Your task to perform on an android device: Open sound settings Image 0: 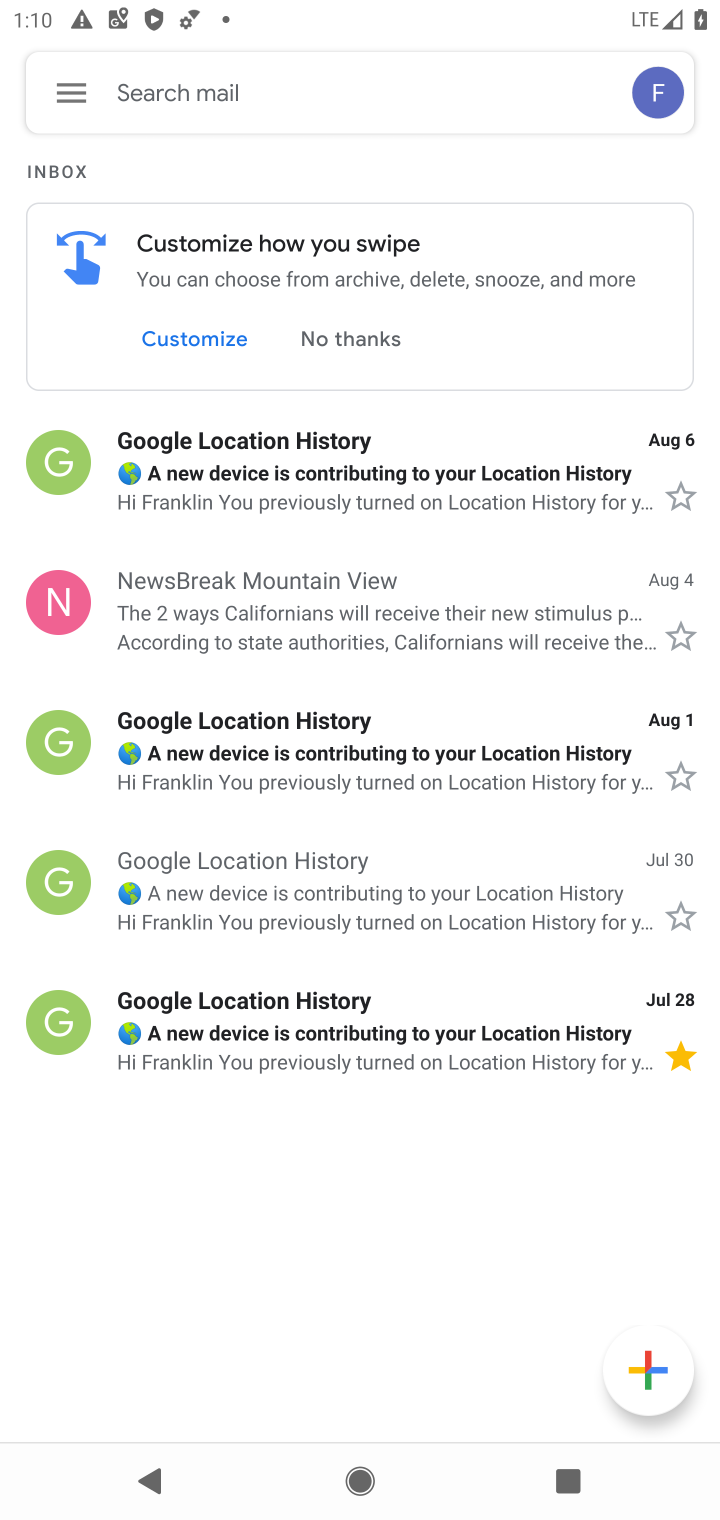
Step 0: press home button
Your task to perform on an android device: Open sound settings Image 1: 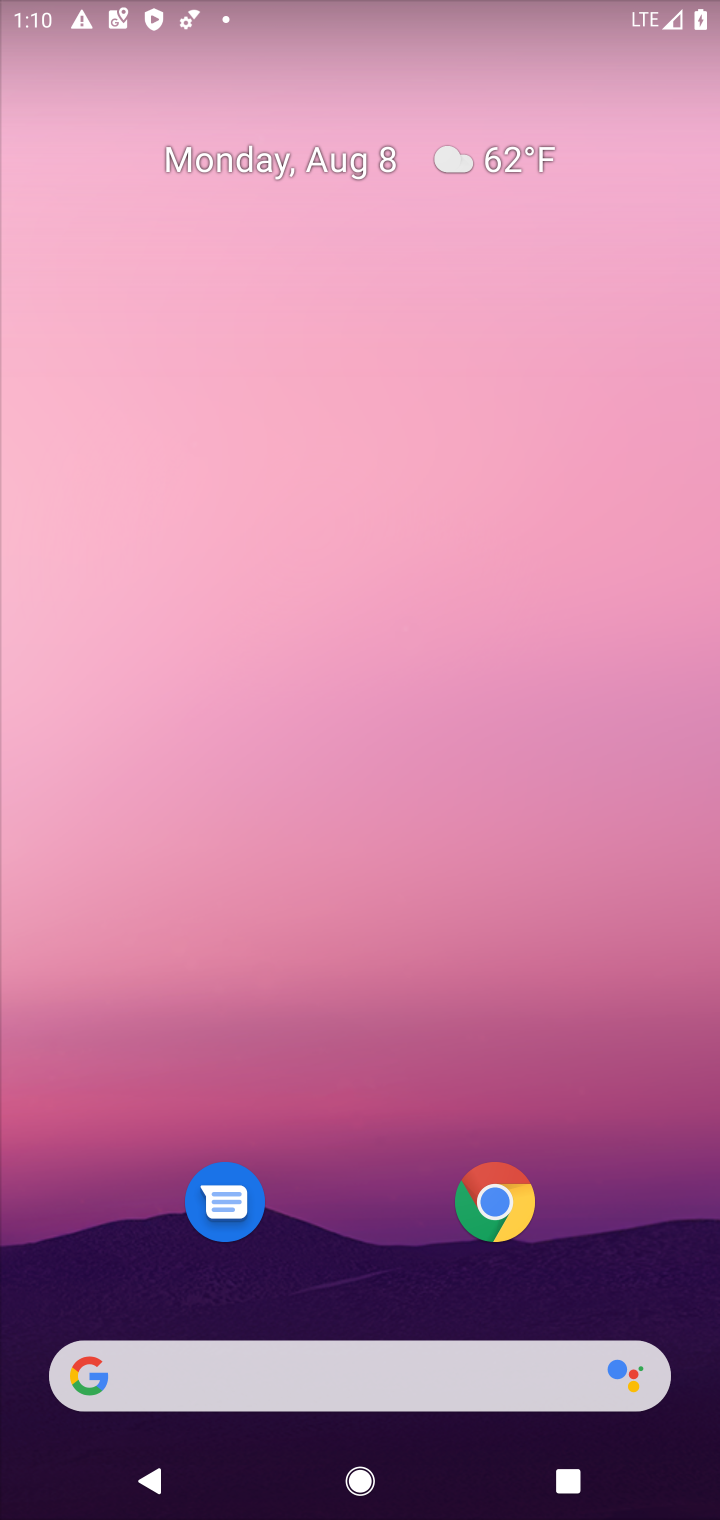
Step 1: drag from (333, 1092) to (383, 268)
Your task to perform on an android device: Open sound settings Image 2: 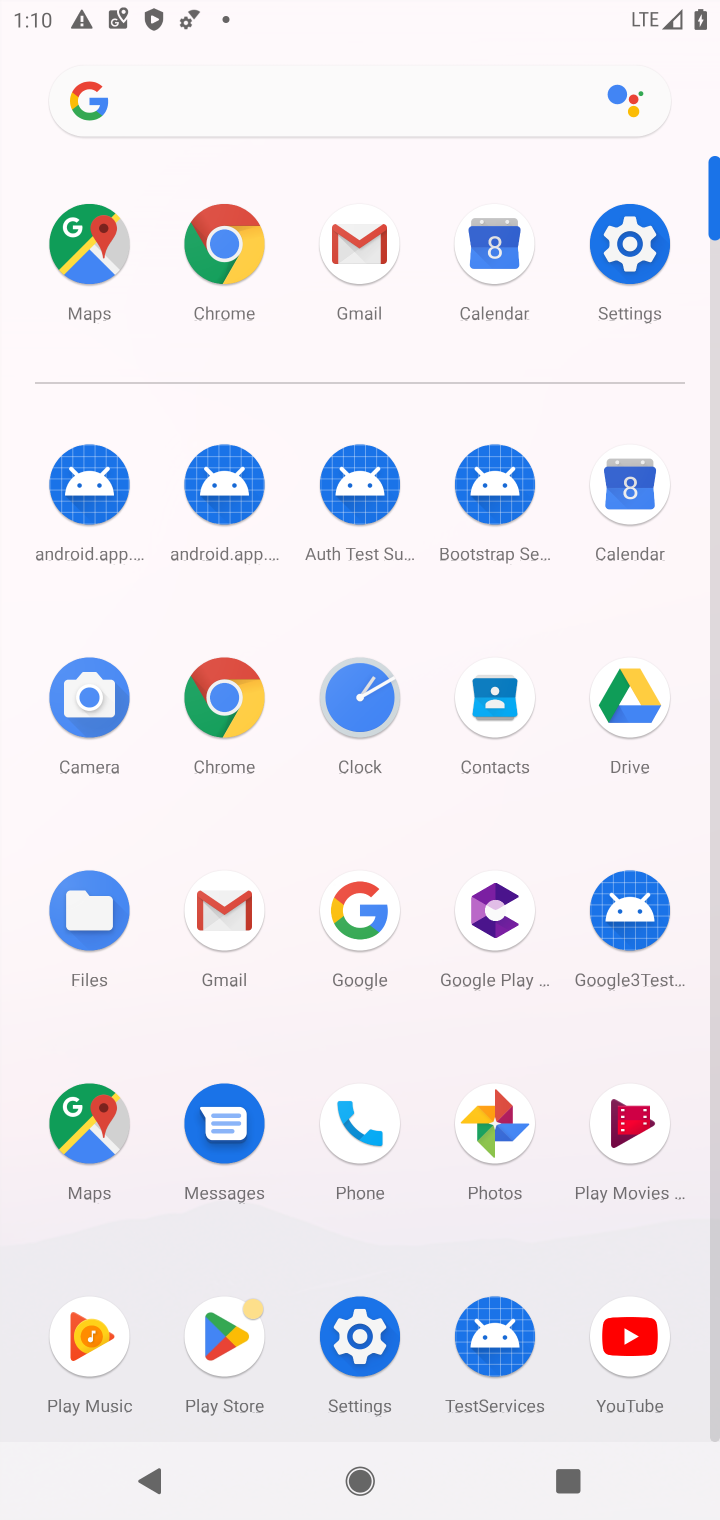
Step 2: click (366, 1338)
Your task to perform on an android device: Open sound settings Image 3: 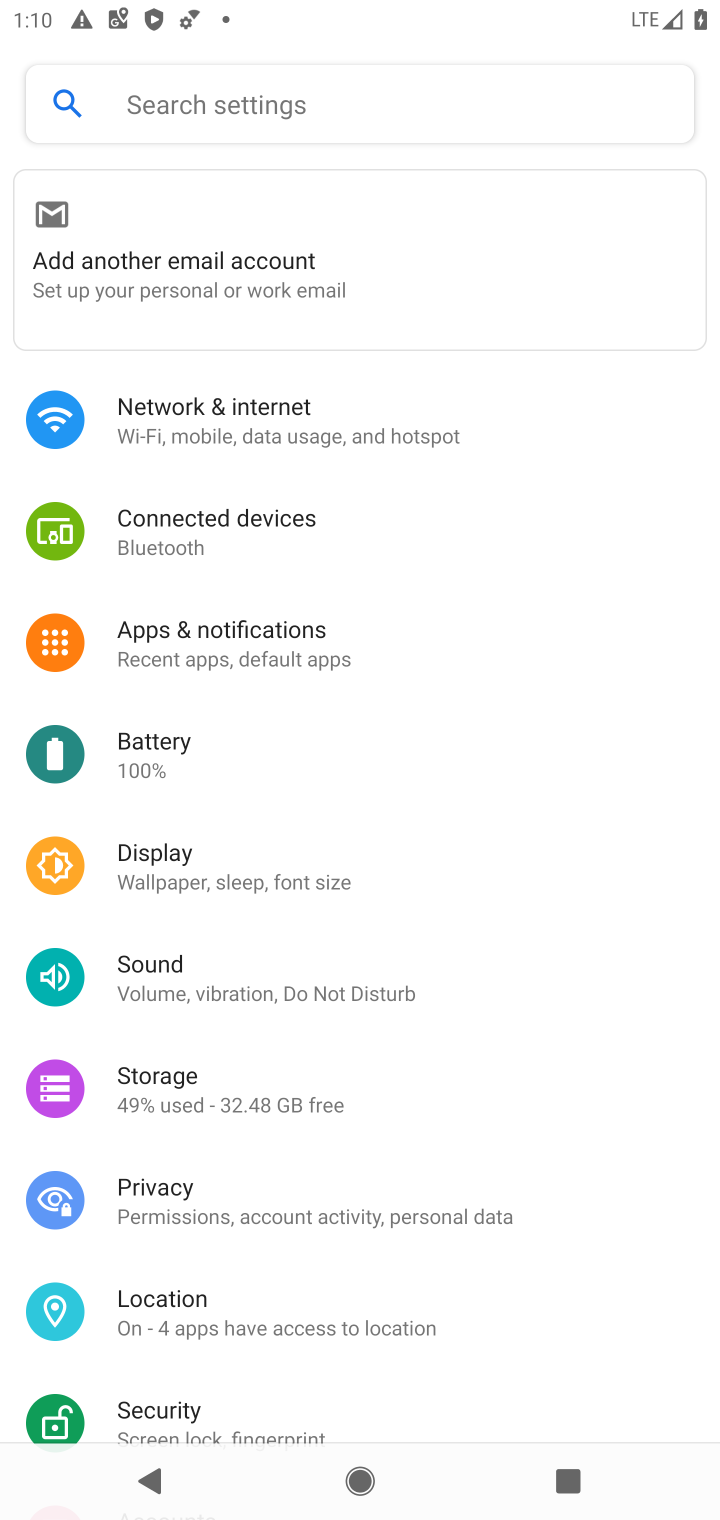
Step 3: click (291, 962)
Your task to perform on an android device: Open sound settings Image 4: 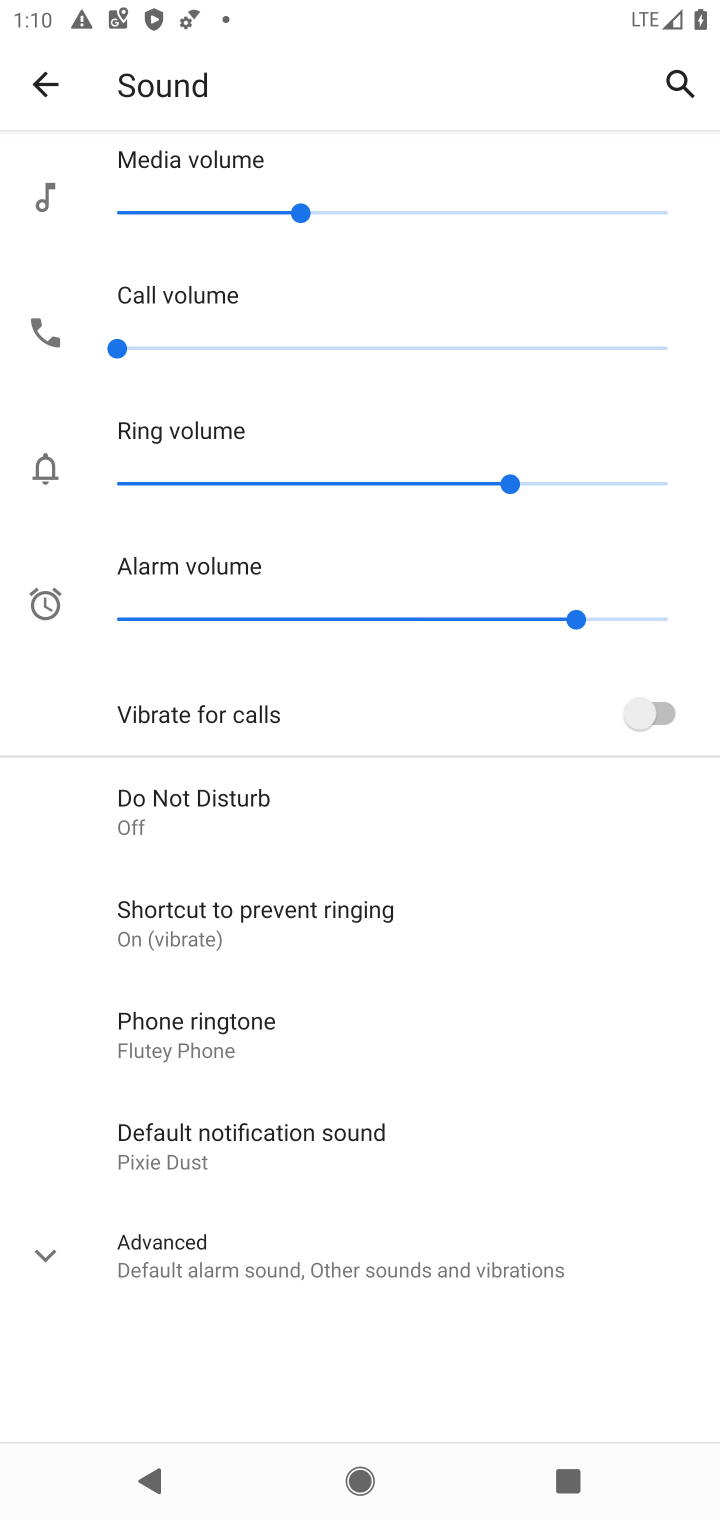
Step 4: task complete